Your task to perform on an android device: move an email to a new category in the gmail app Image 0: 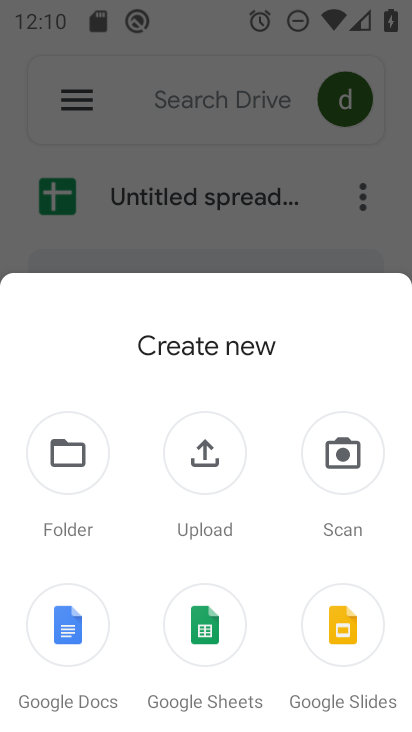
Step 0: press home button
Your task to perform on an android device: move an email to a new category in the gmail app Image 1: 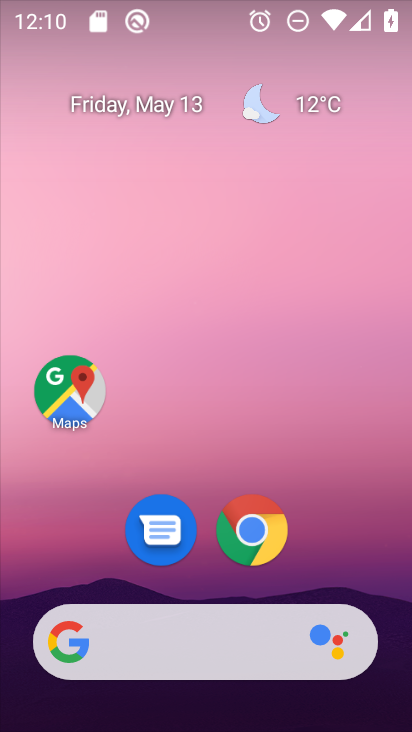
Step 1: drag from (174, 623) to (290, 196)
Your task to perform on an android device: move an email to a new category in the gmail app Image 2: 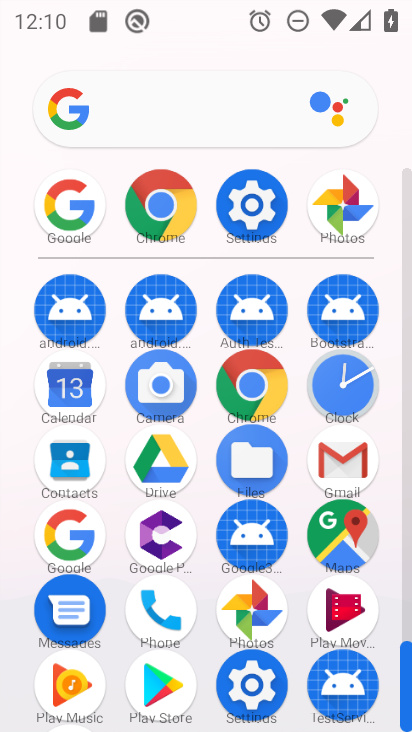
Step 2: click (345, 473)
Your task to perform on an android device: move an email to a new category in the gmail app Image 3: 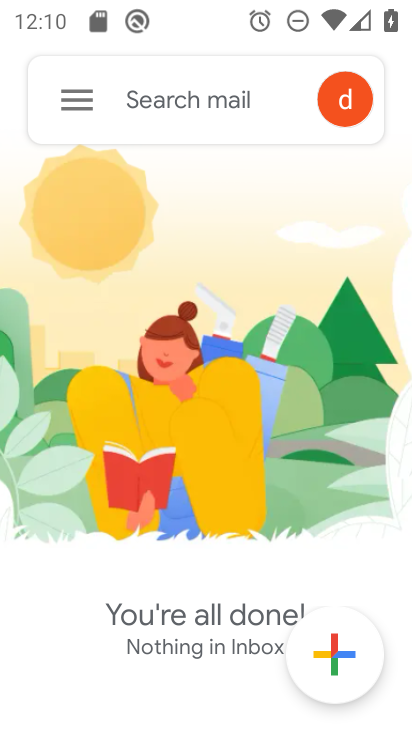
Step 3: task complete